Your task to perform on an android device: What's the weather going to be tomorrow? Image 0: 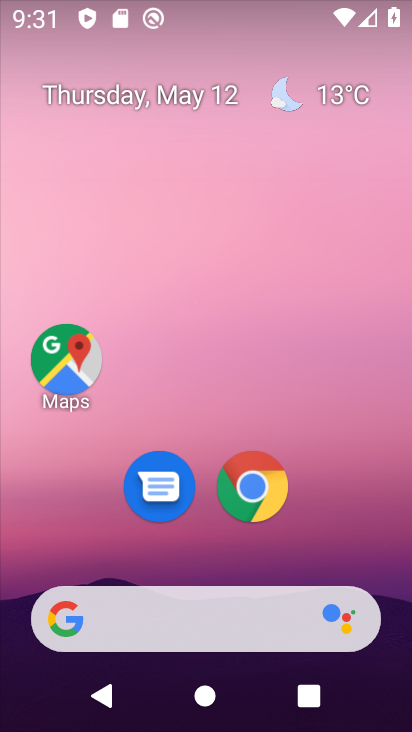
Step 0: click (359, 513)
Your task to perform on an android device: What's the weather going to be tomorrow? Image 1: 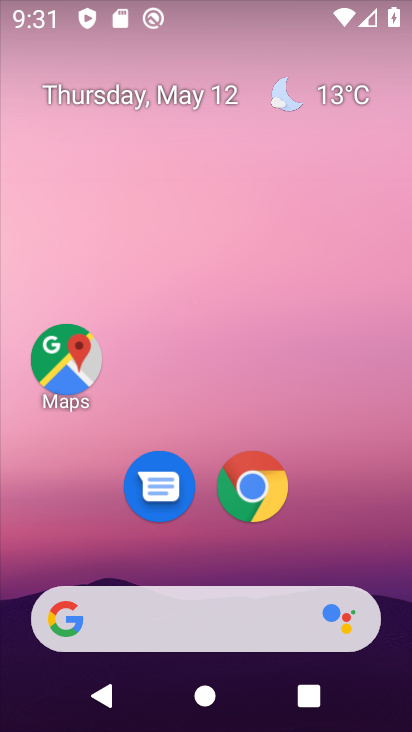
Step 1: click (336, 93)
Your task to perform on an android device: What's the weather going to be tomorrow? Image 2: 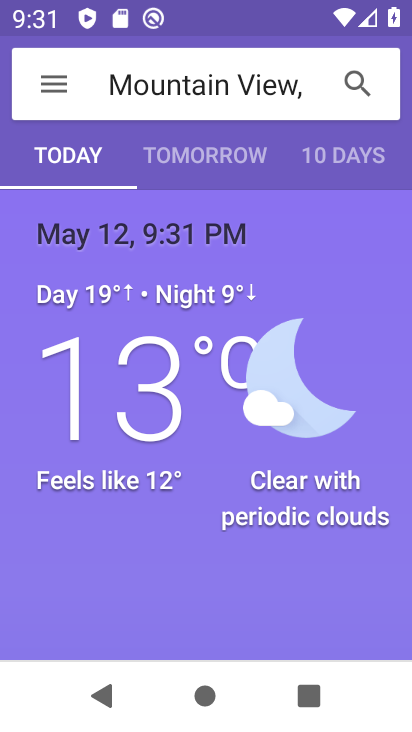
Step 2: click (231, 168)
Your task to perform on an android device: What's the weather going to be tomorrow? Image 3: 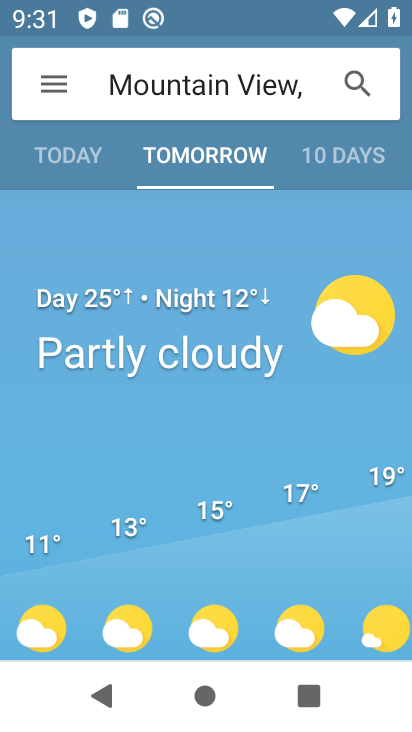
Step 3: task complete